Your task to perform on an android device: Add bose soundsport free to the cart on bestbuy, then select checkout. Image 0: 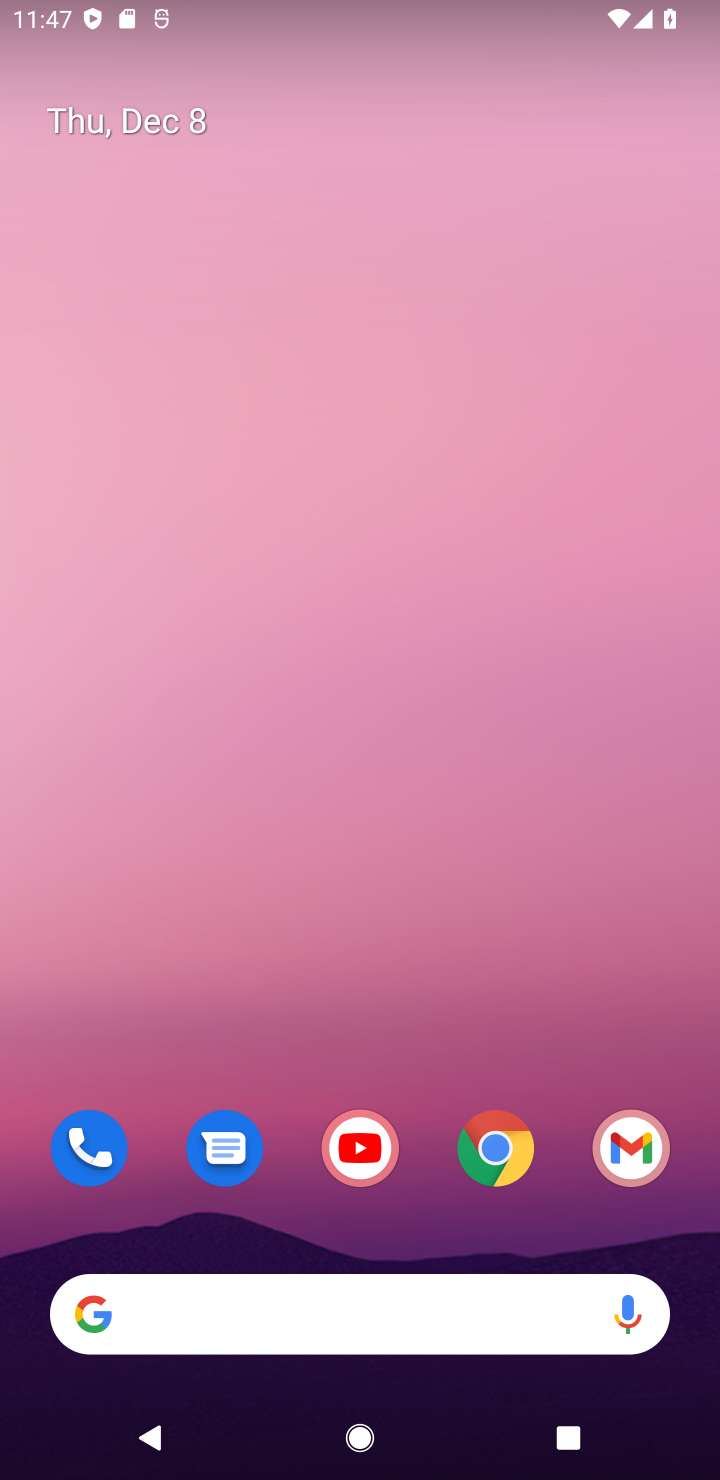
Step 0: click (284, 1294)
Your task to perform on an android device: Add bose soundsport free to the cart on bestbuy, then select checkout. Image 1: 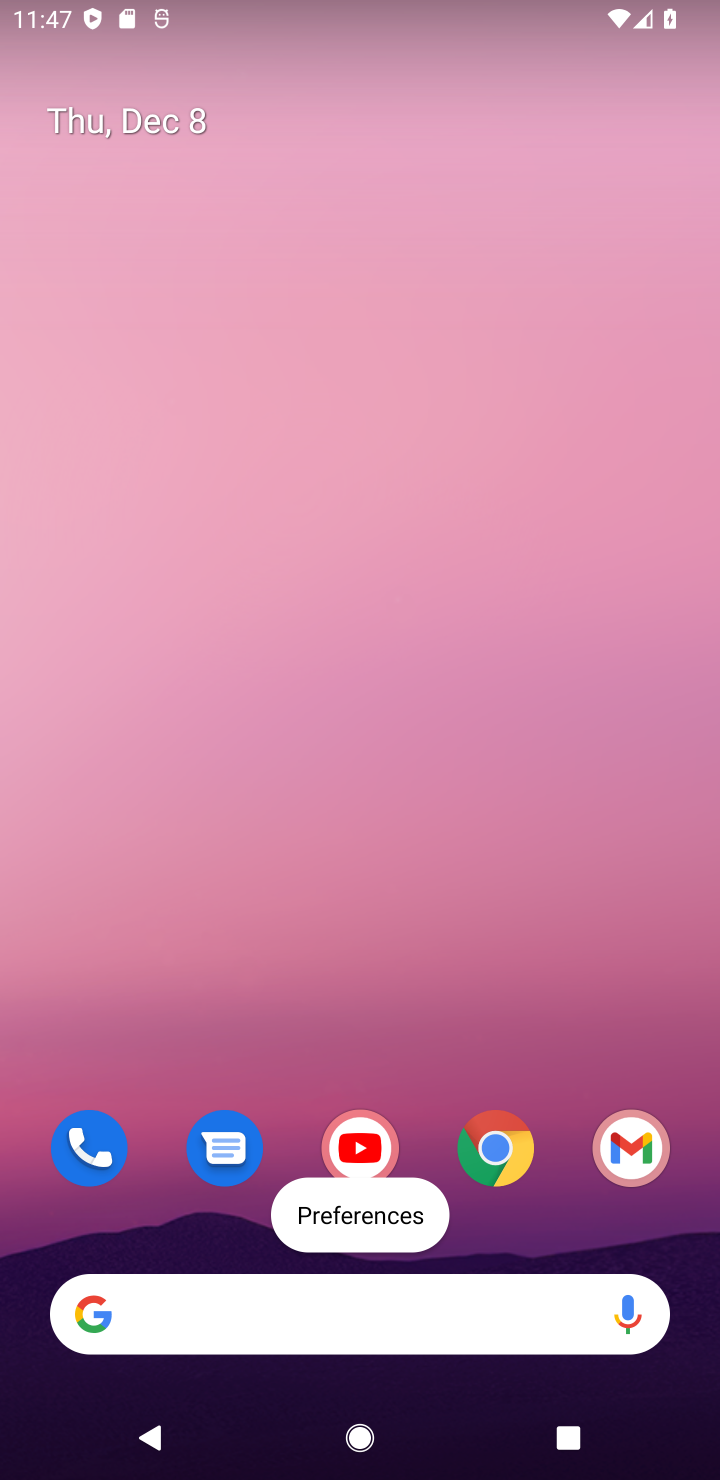
Step 1: click (301, 1310)
Your task to perform on an android device: Add bose soundsport free to the cart on bestbuy, then select checkout. Image 2: 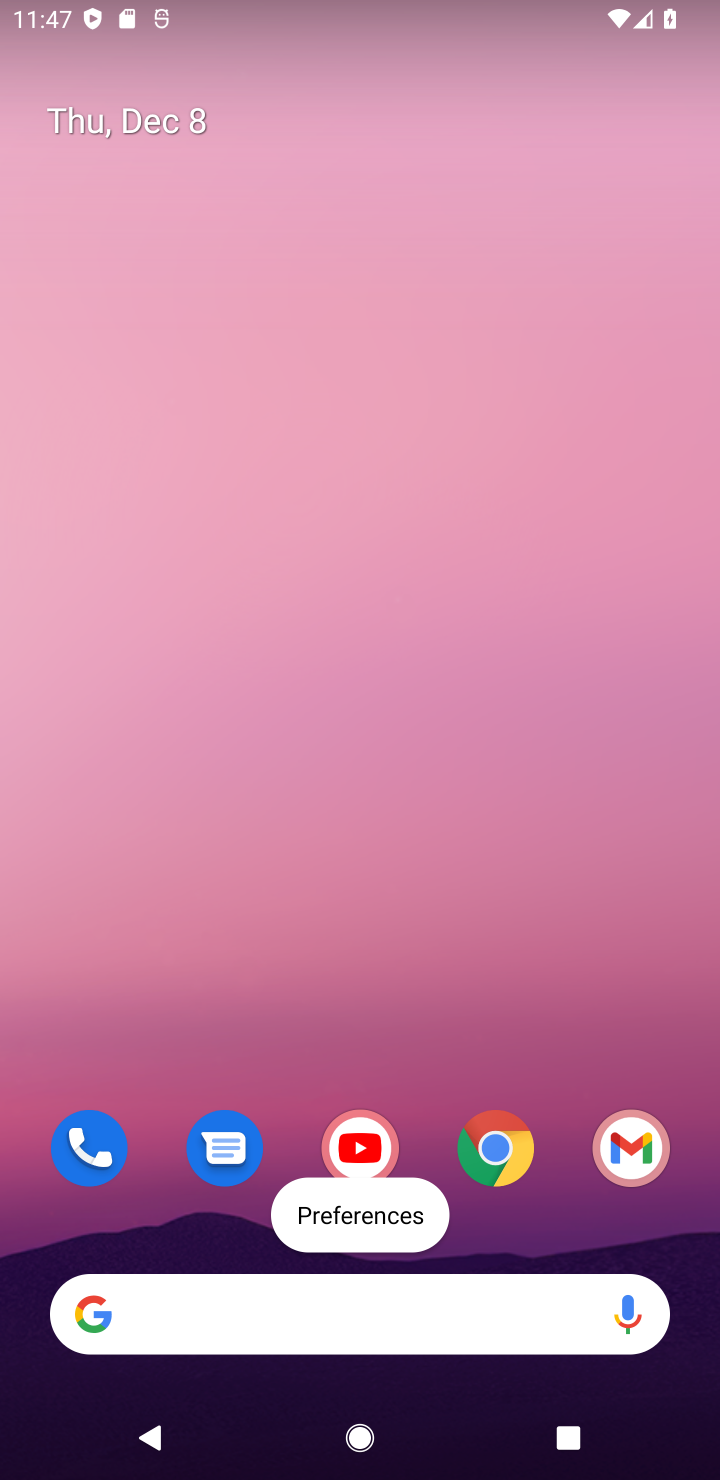
Step 2: click (171, 1325)
Your task to perform on an android device: Add bose soundsport free to the cart on bestbuy, then select checkout. Image 3: 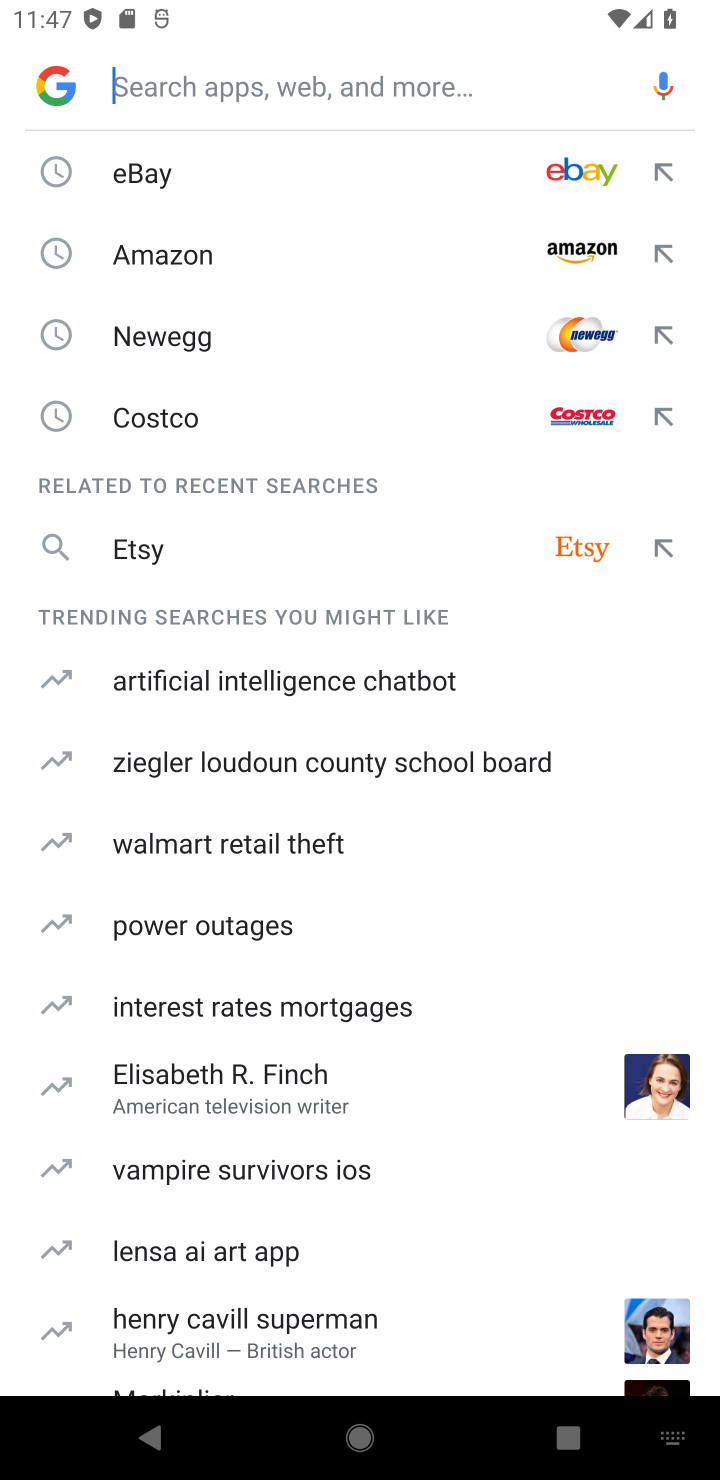
Step 3: type "bestb"
Your task to perform on an android device: Add bose soundsport free to the cart on bestbuy, then select checkout. Image 4: 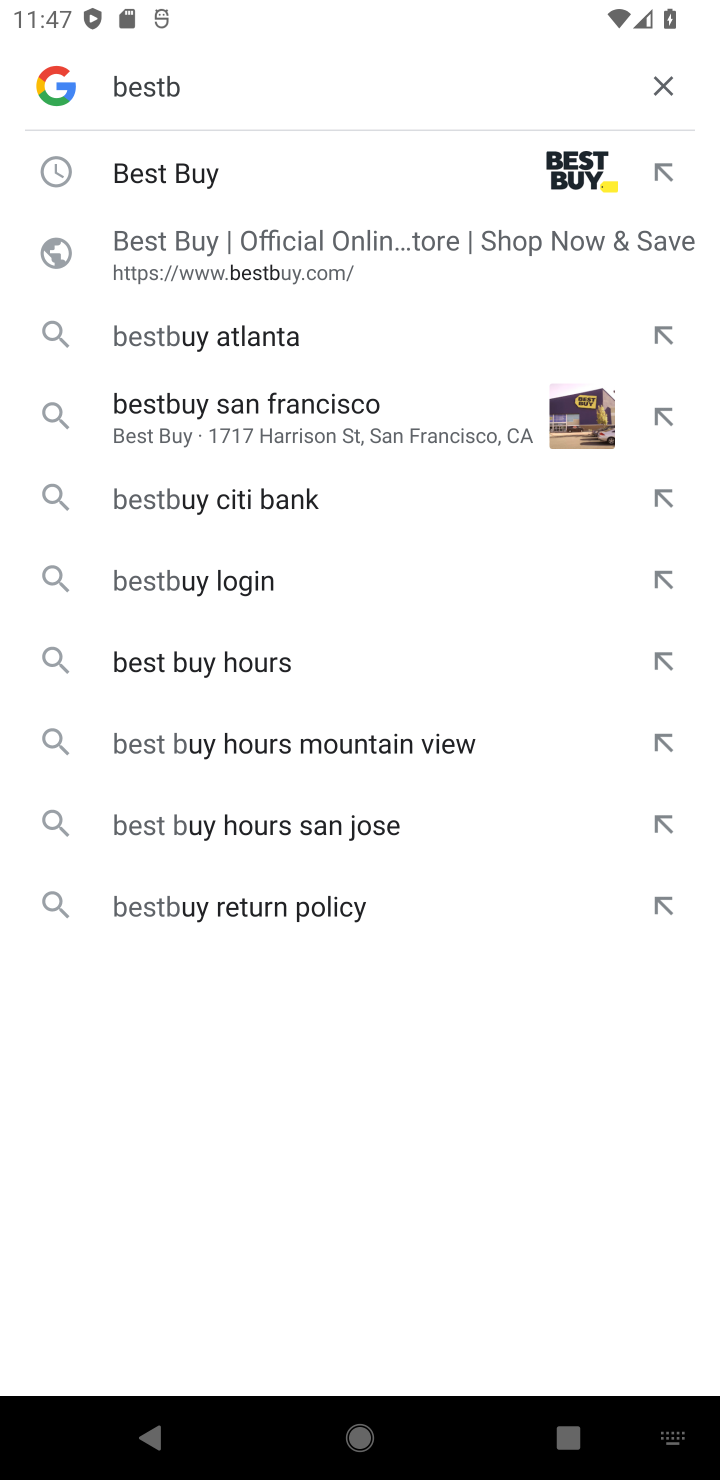
Step 4: click (201, 168)
Your task to perform on an android device: Add bose soundsport free to the cart on bestbuy, then select checkout. Image 5: 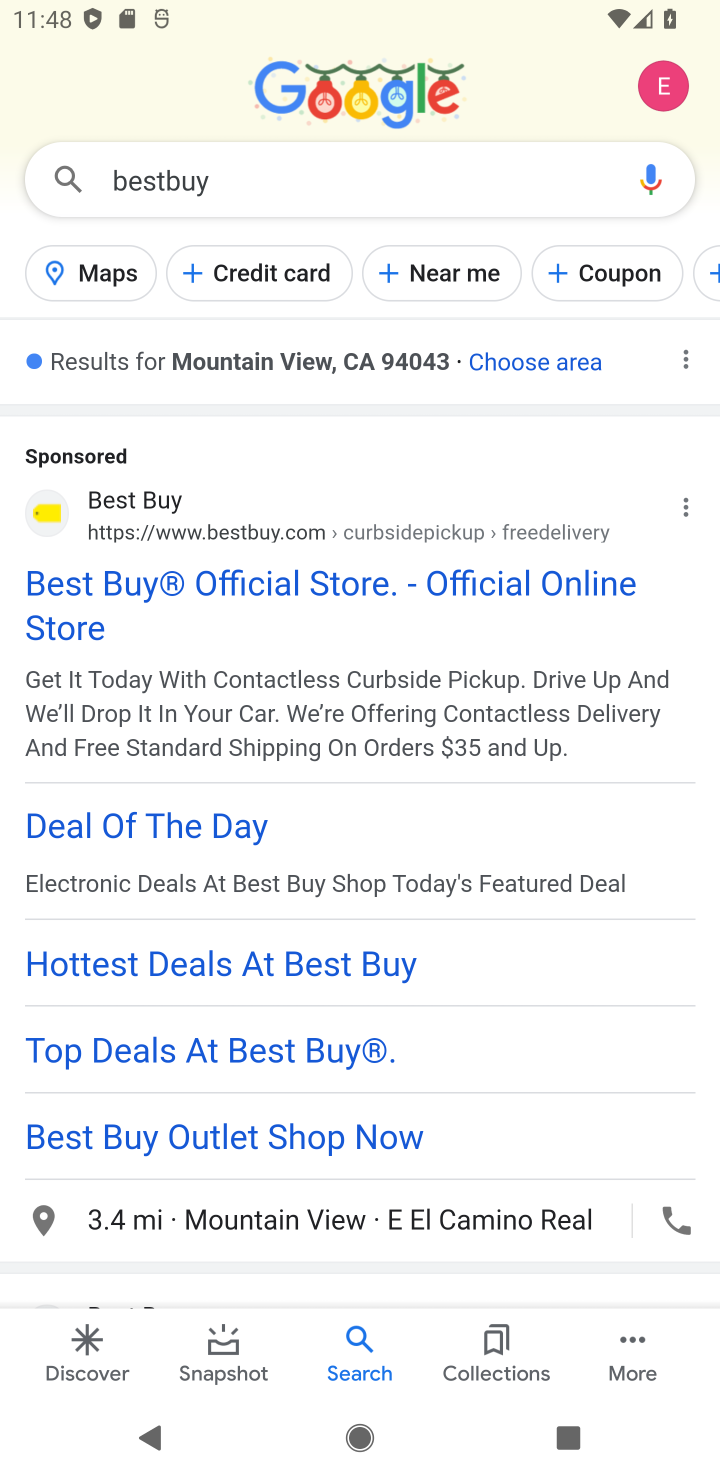
Step 5: click (131, 490)
Your task to perform on an android device: Add bose soundsport free to the cart on bestbuy, then select checkout. Image 6: 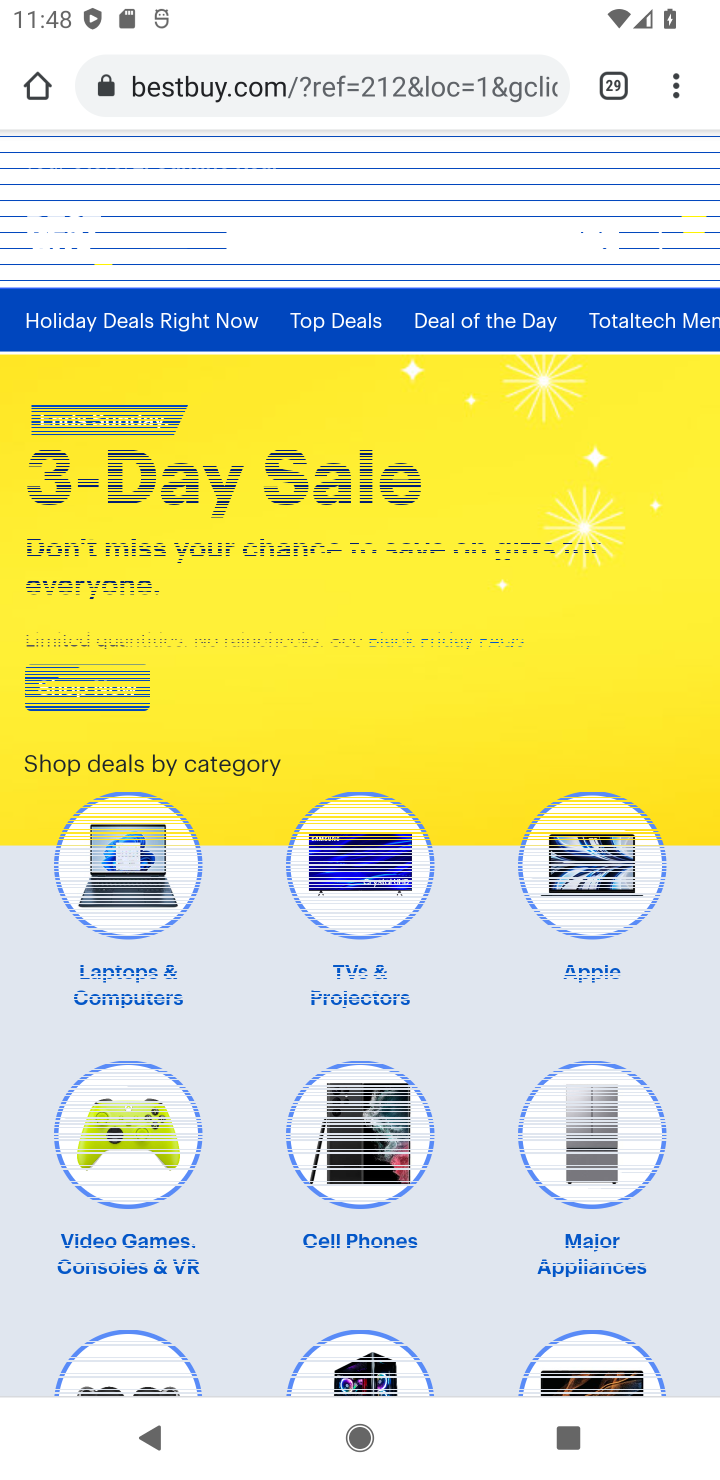
Step 6: click (337, 242)
Your task to perform on an android device: Add bose soundsport free to the cart on bestbuy, then select checkout. Image 7: 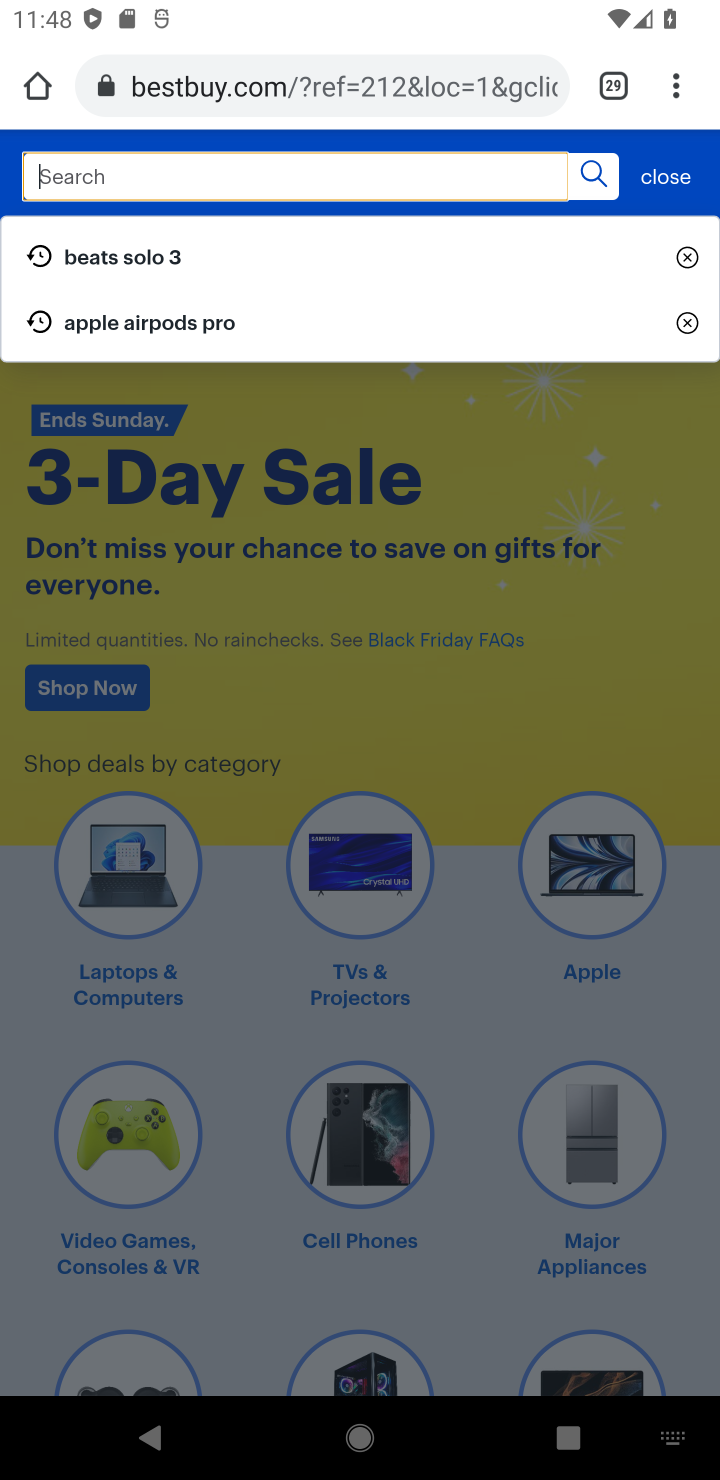
Step 7: type "bose soundsport free"
Your task to perform on an android device: Add bose soundsport free to the cart on bestbuy, then select checkout. Image 8: 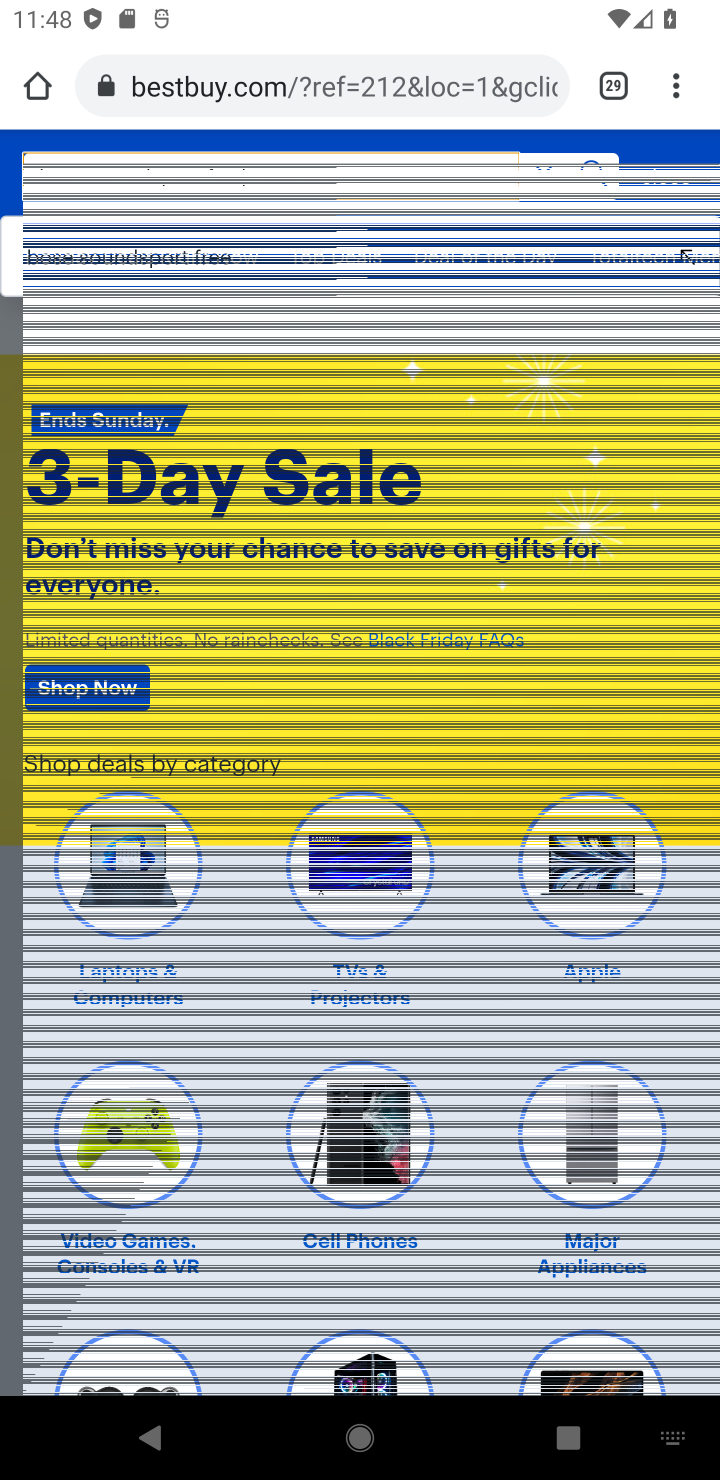
Step 8: click (249, 244)
Your task to perform on an android device: Add bose soundsport free to the cart on bestbuy, then select checkout. Image 9: 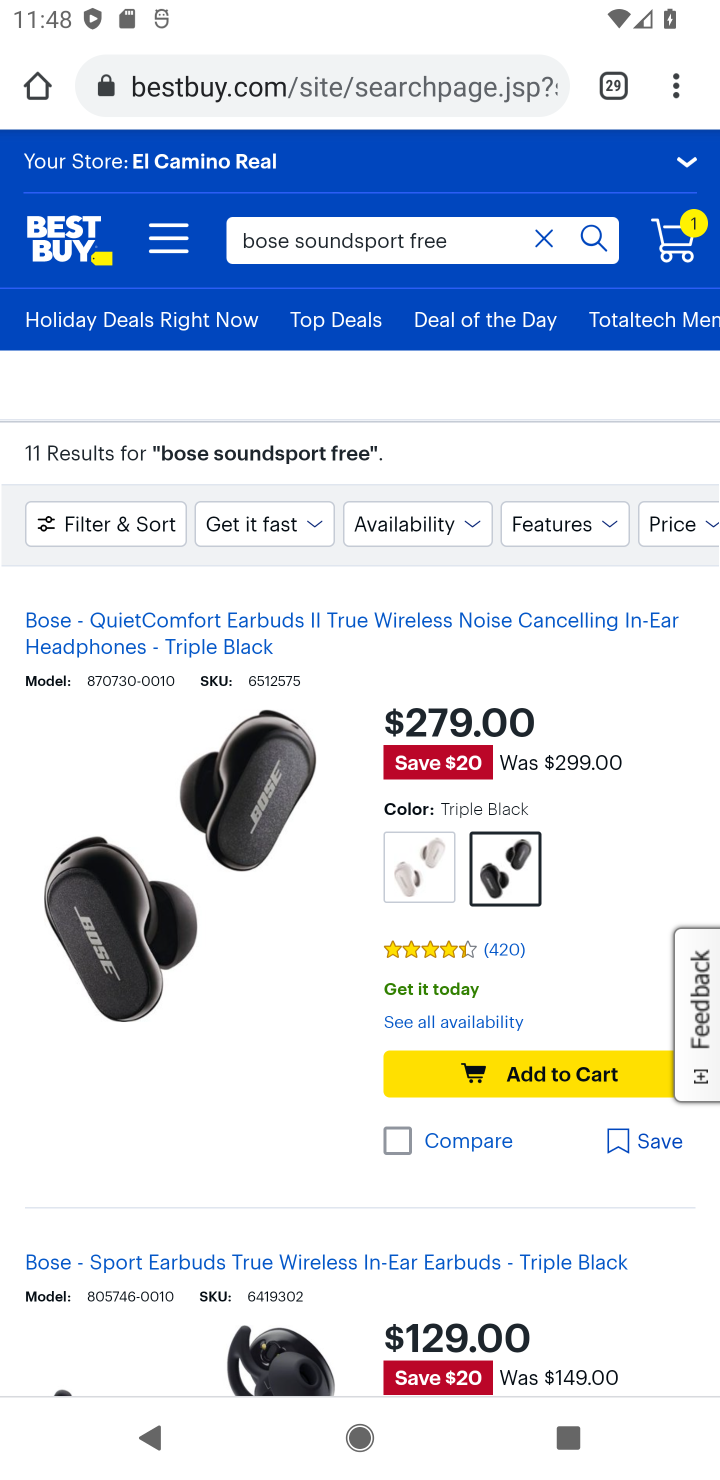
Step 9: click (544, 1068)
Your task to perform on an android device: Add bose soundsport free to the cart on bestbuy, then select checkout. Image 10: 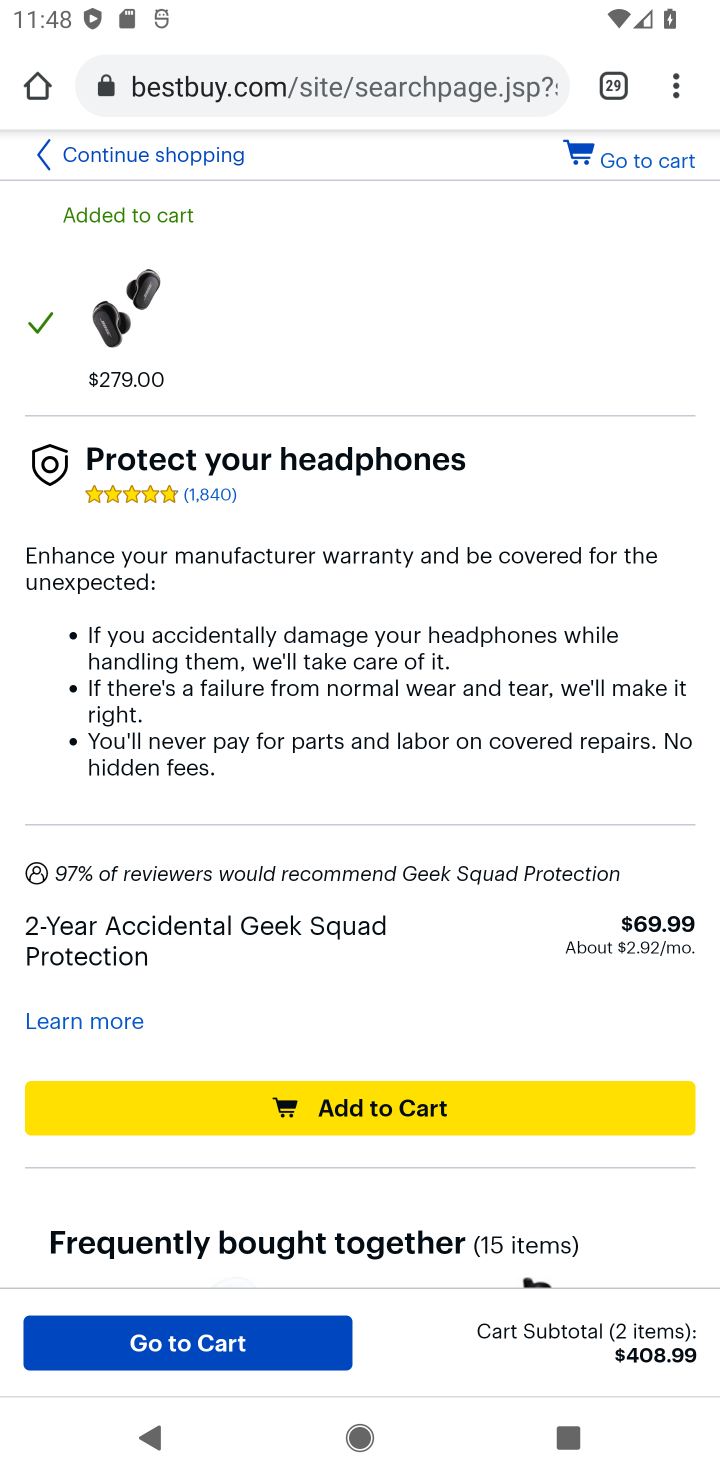
Step 10: click (229, 1343)
Your task to perform on an android device: Add bose soundsport free to the cart on bestbuy, then select checkout. Image 11: 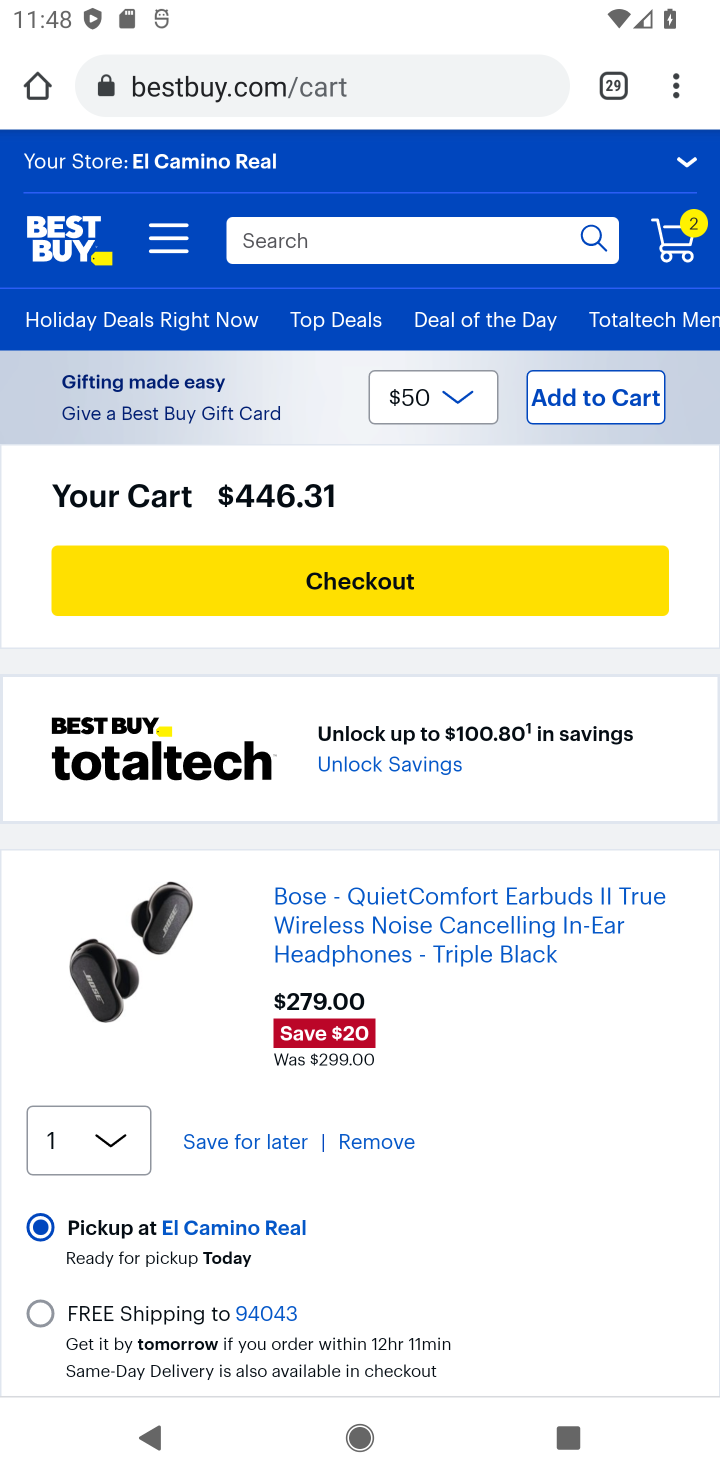
Step 11: click (350, 579)
Your task to perform on an android device: Add bose soundsport free to the cart on bestbuy, then select checkout. Image 12: 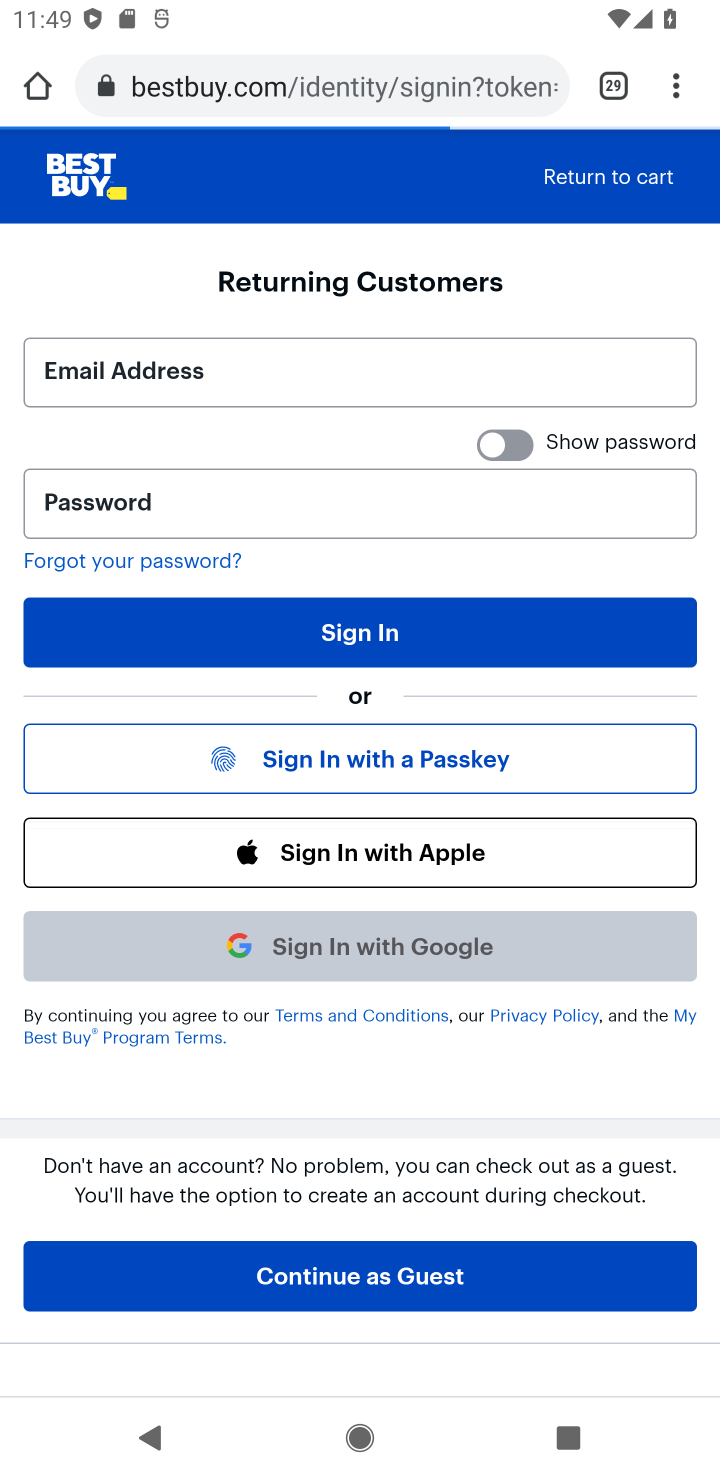
Step 12: task complete